Your task to perform on an android device: turn on sleep mode Image 0: 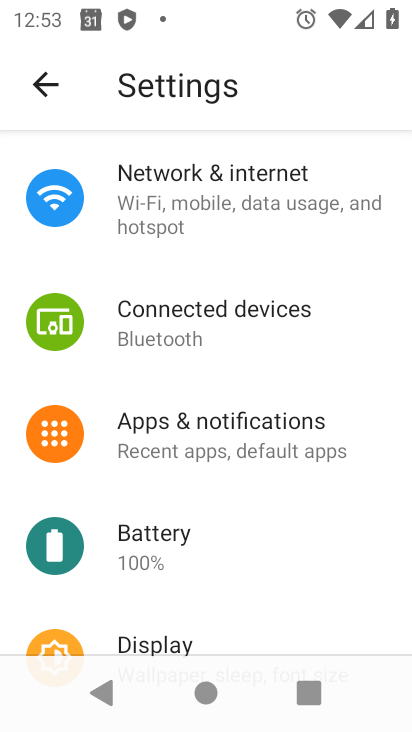
Step 0: click (40, 74)
Your task to perform on an android device: turn on sleep mode Image 1: 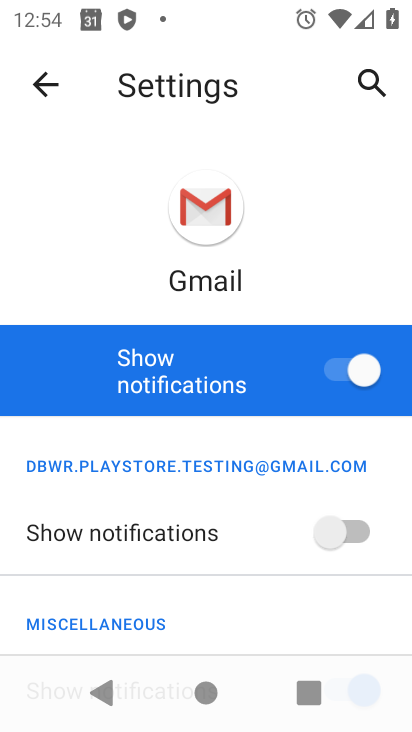
Step 1: press home button
Your task to perform on an android device: turn on sleep mode Image 2: 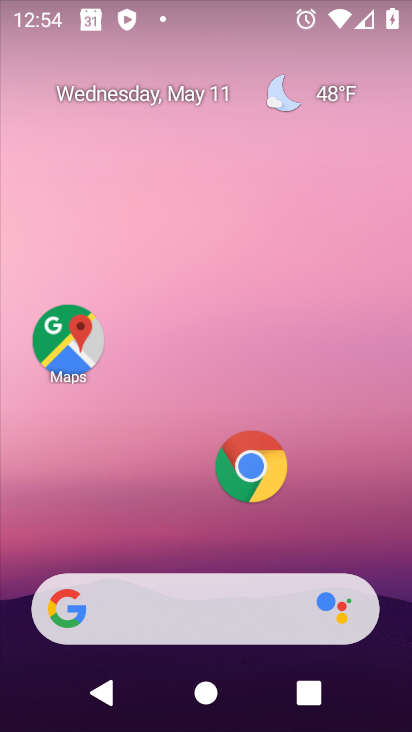
Step 2: drag from (192, 517) to (265, 76)
Your task to perform on an android device: turn on sleep mode Image 3: 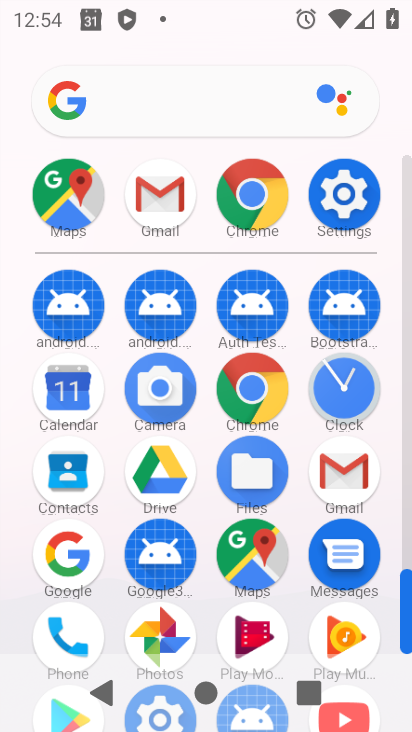
Step 3: click (351, 188)
Your task to perform on an android device: turn on sleep mode Image 4: 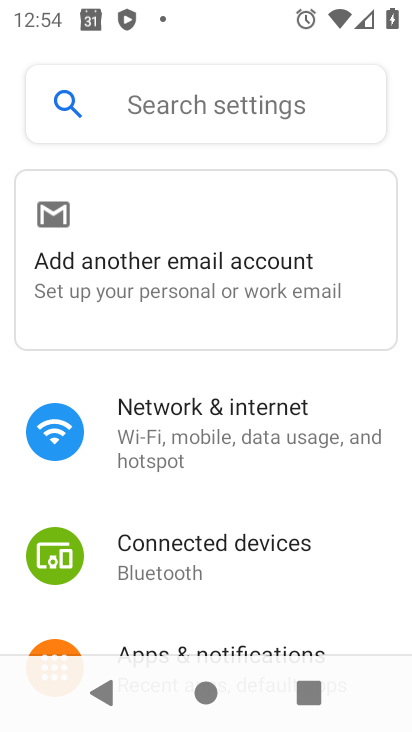
Step 4: click (168, 107)
Your task to perform on an android device: turn on sleep mode Image 5: 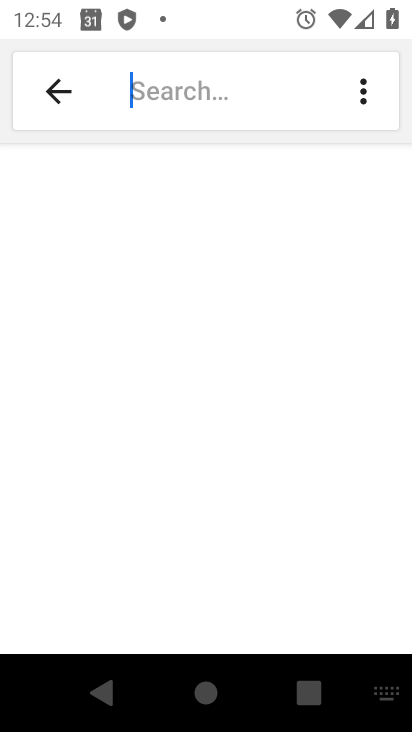
Step 5: type "sleep mode"
Your task to perform on an android device: turn on sleep mode Image 6: 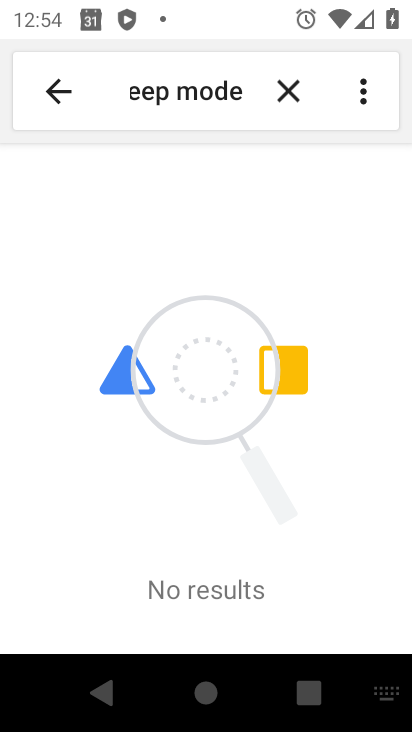
Step 6: task complete